Your task to perform on an android device: toggle sleep mode Image 0: 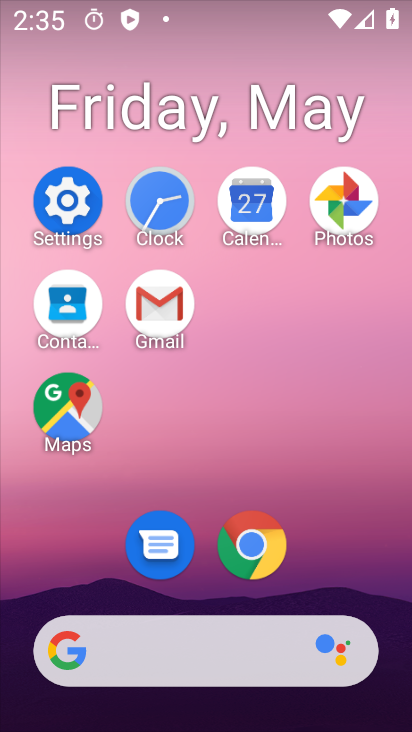
Step 0: click (82, 198)
Your task to perform on an android device: toggle sleep mode Image 1: 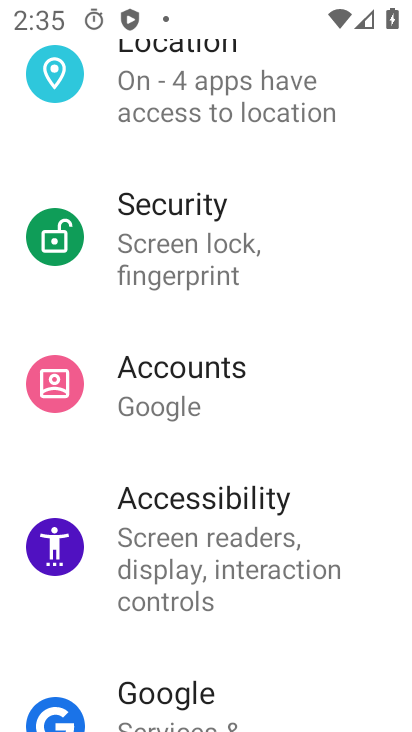
Step 1: drag from (287, 251) to (283, 710)
Your task to perform on an android device: toggle sleep mode Image 2: 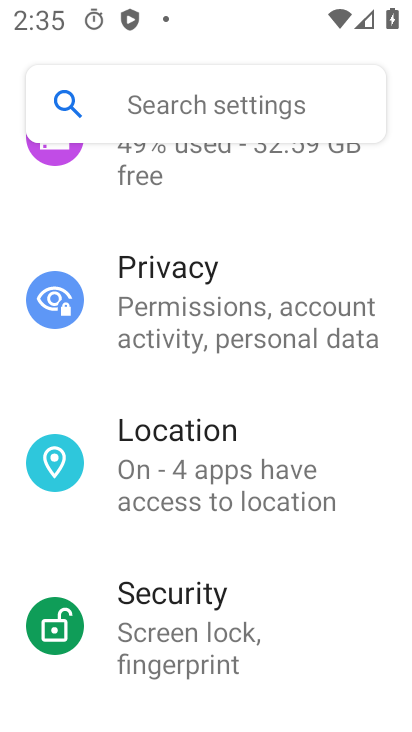
Step 2: drag from (275, 158) to (253, 668)
Your task to perform on an android device: toggle sleep mode Image 3: 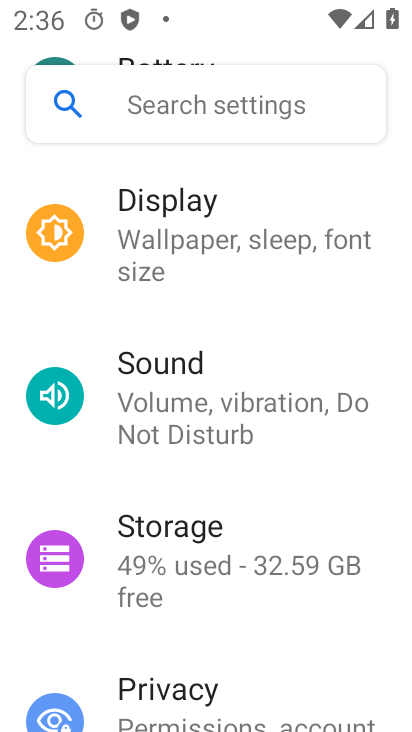
Step 3: click (312, 257)
Your task to perform on an android device: toggle sleep mode Image 4: 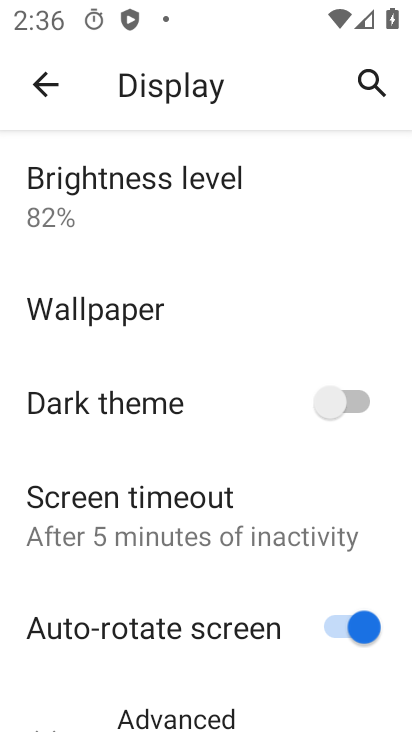
Step 4: click (234, 508)
Your task to perform on an android device: toggle sleep mode Image 5: 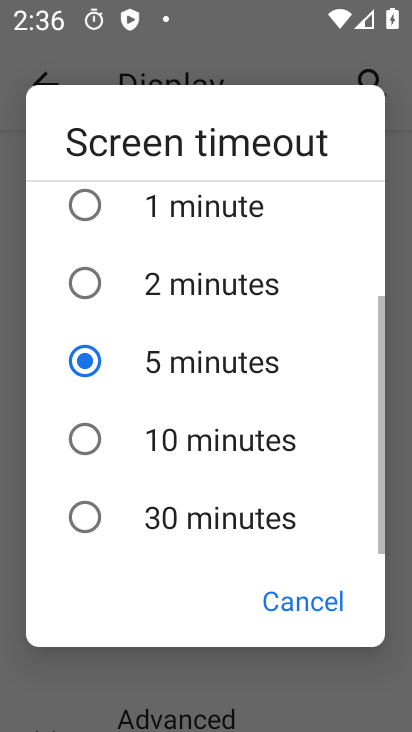
Step 5: click (115, 280)
Your task to perform on an android device: toggle sleep mode Image 6: 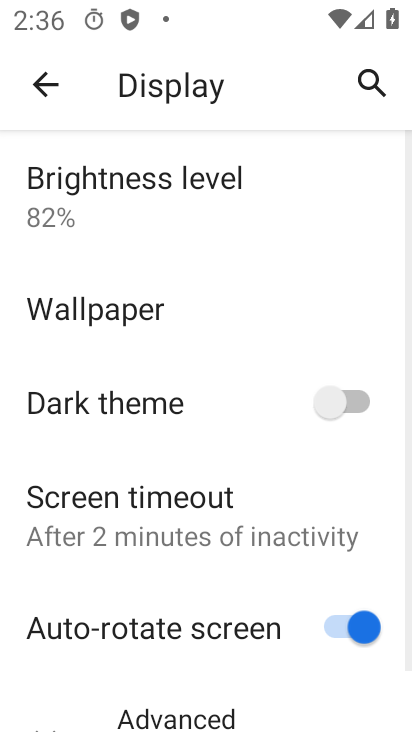
Step 6: task complete